Your task to perform on an android device: Set the phone to "Do not disturb". Image 0: 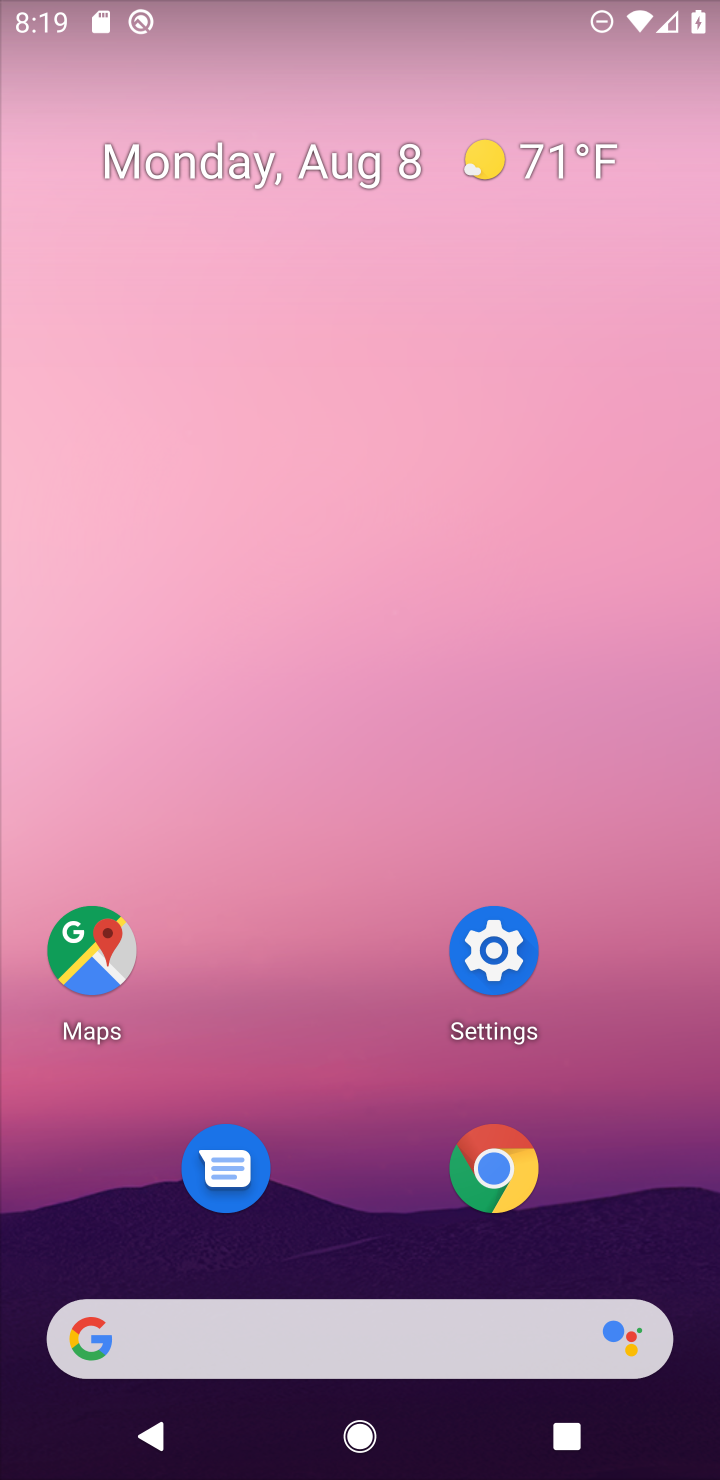
Step 0: press home button
Your task to perform on an android device: Set the phone to "Do not disturb". Image 1: 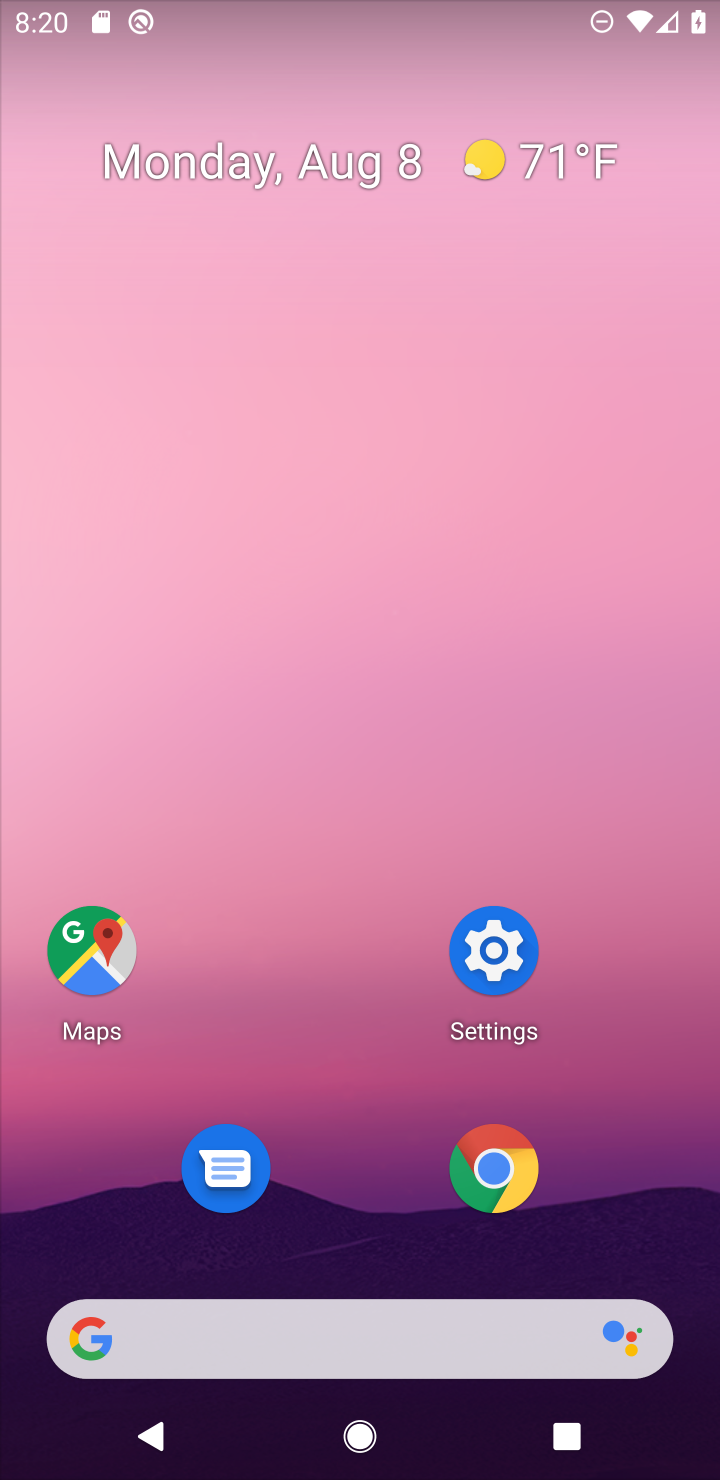
Step 1: click (507, 960)
Your task to perform on an android device: Set the phone to "Do not disturb". Image 2: 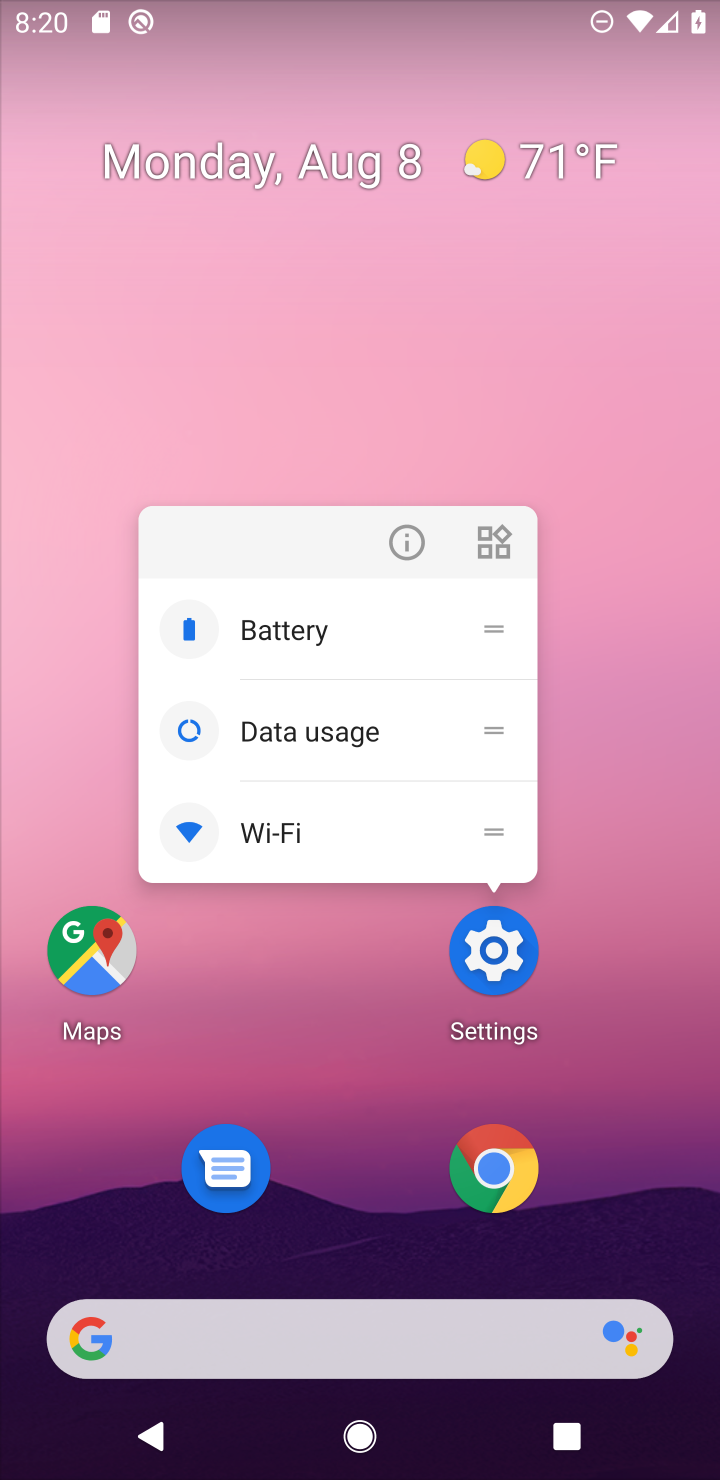
Step 2: click (504, 958)
Your task to perform on an android device: Set the phone to "Do not disturb". Image 3: 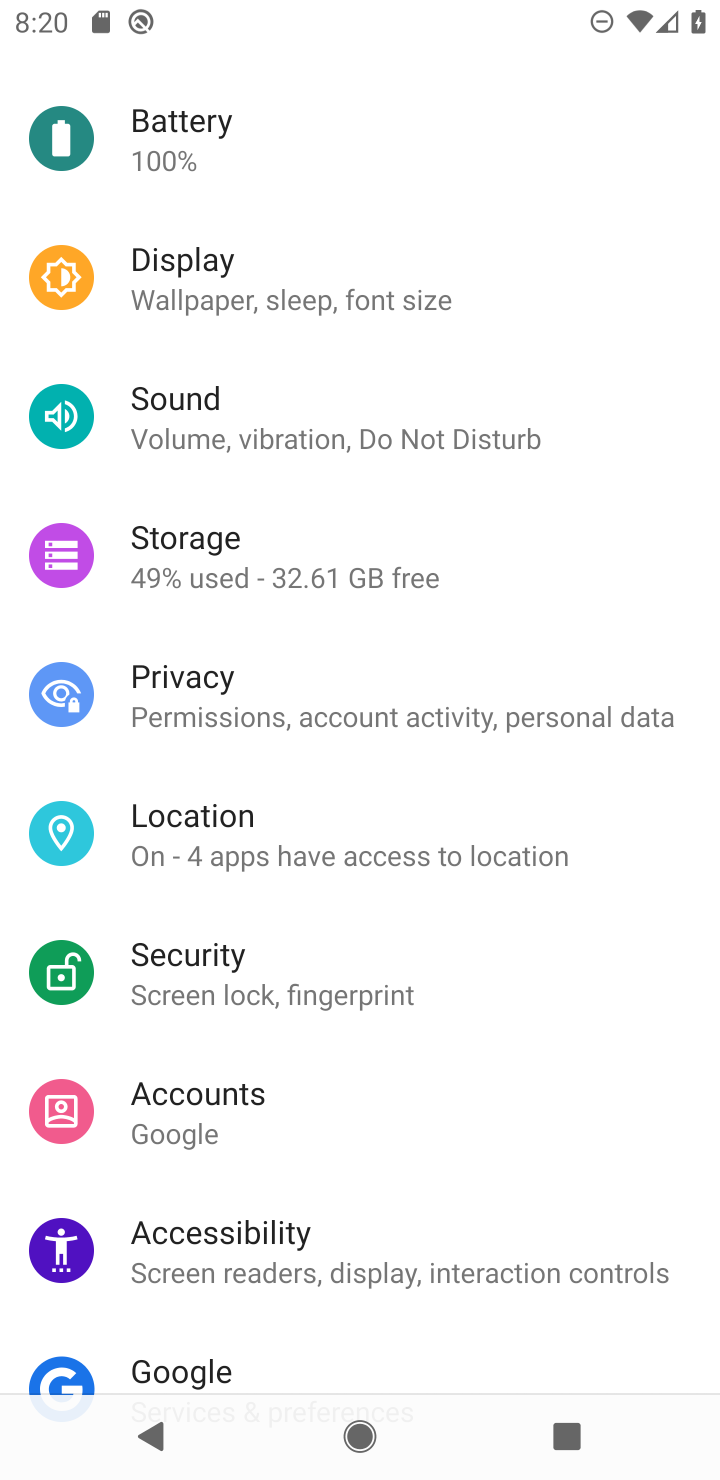
Step 3: click (200, 411)
Your task to perform on an android device: Set the phone to "Do not disturb". Image 4: 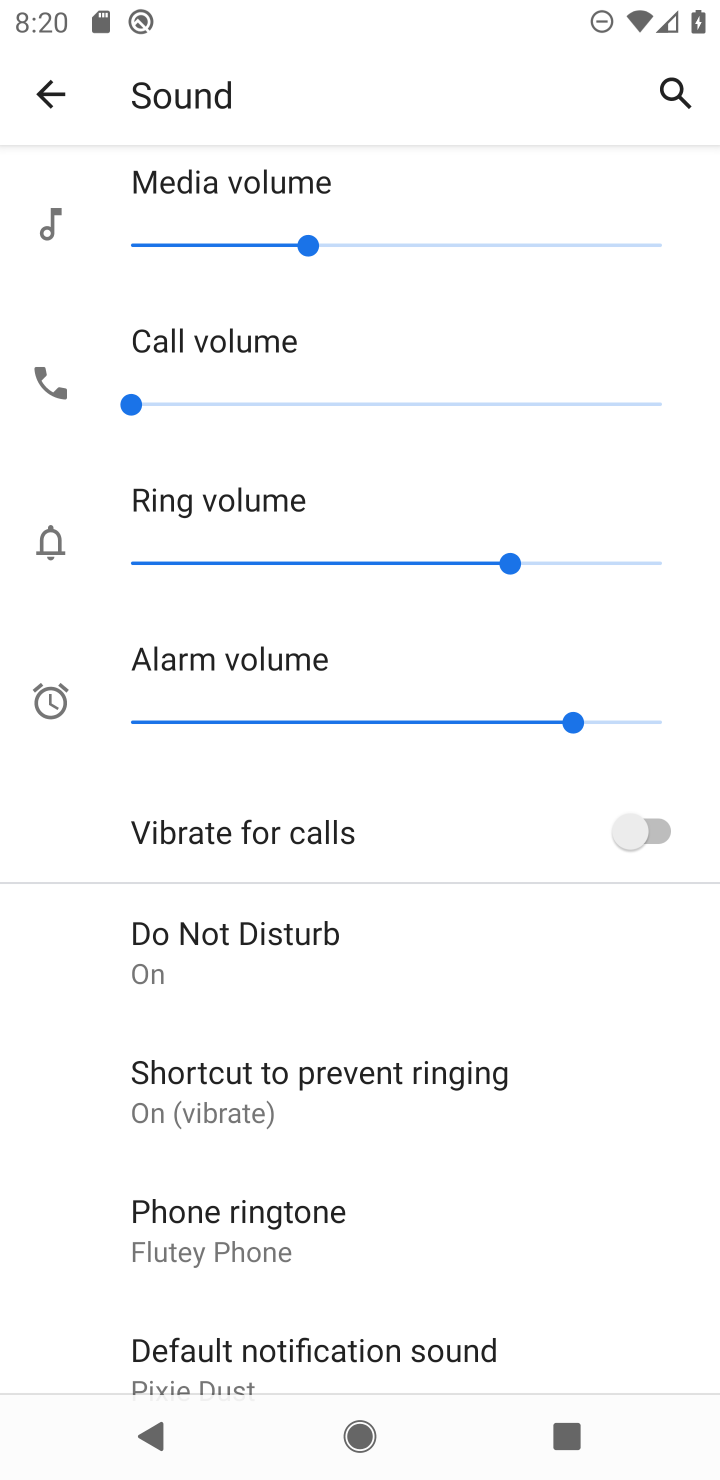
Step 4: click (217, 925)
Your task to perform on an android device: Set the phone to "Do not disturb". Image 5: 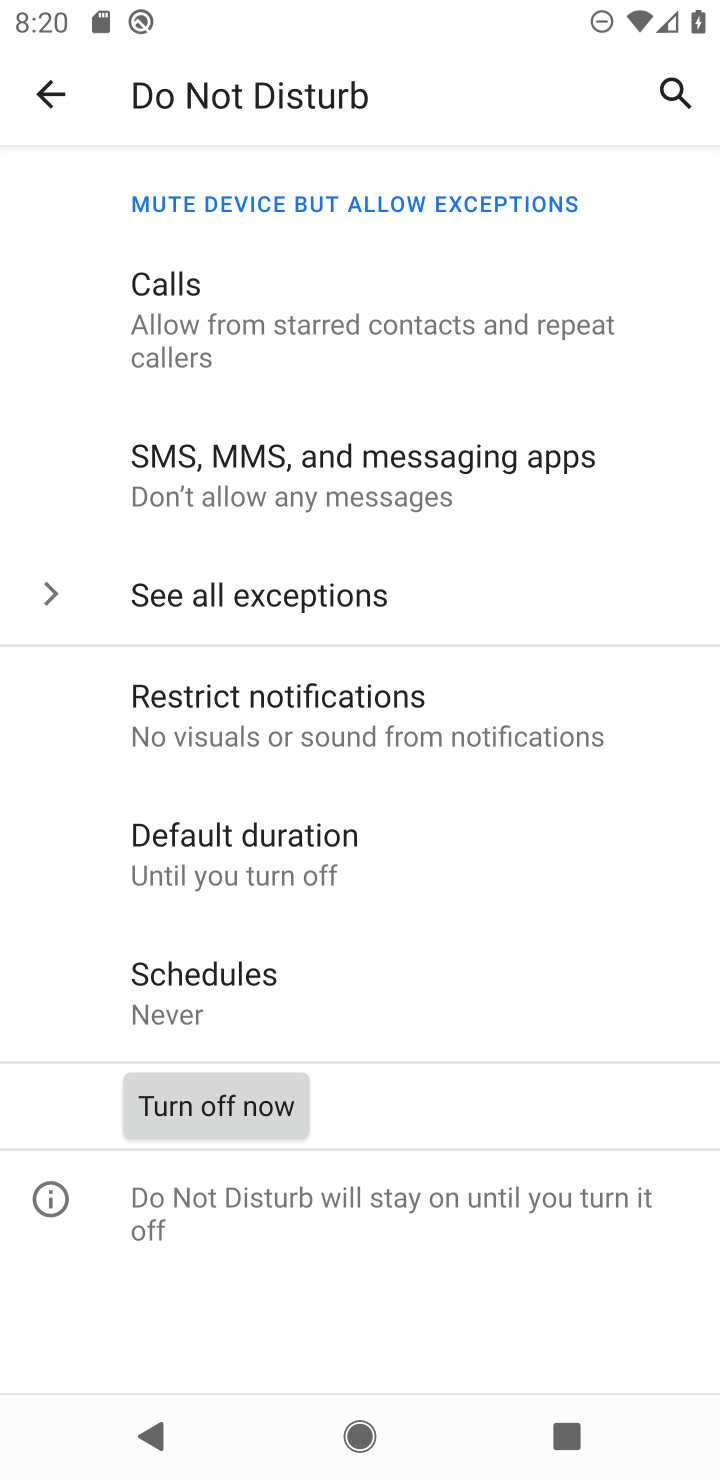
Step 5: task complete